Your task to perform on an android device: stop showing notifications on the lock screen Image 0: 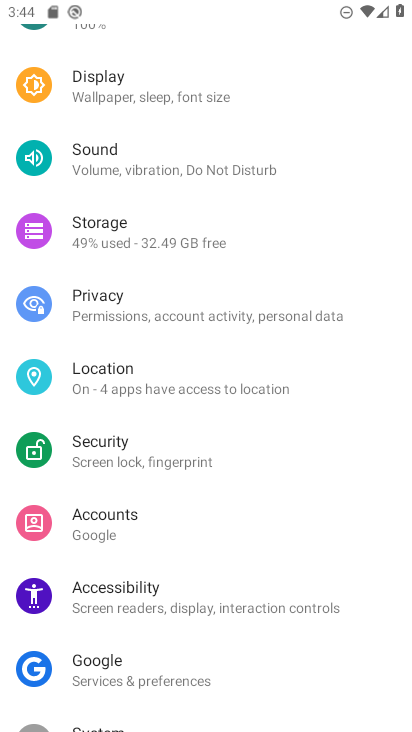
Step 0: drag from (250, 238) to (240, 605)
Your task to perform on an android device: stop showing notifications on the lock screen Image 1: 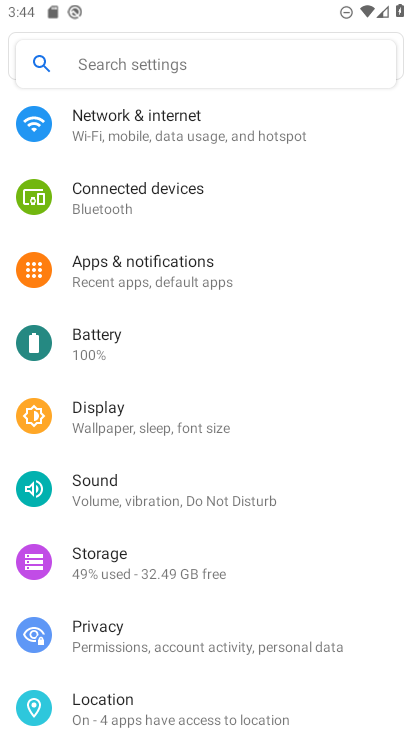
Step 1: click (214, 273)
Your task to perform on an android device: stop showing notifications on the lock screen Image 2: 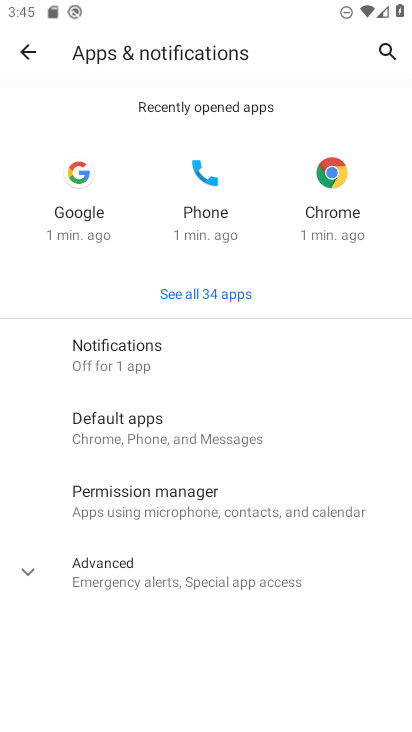
Step 2: click (173, 349)
Your task to perform on an android device: stop showing notifications on the lock screen Image 3: 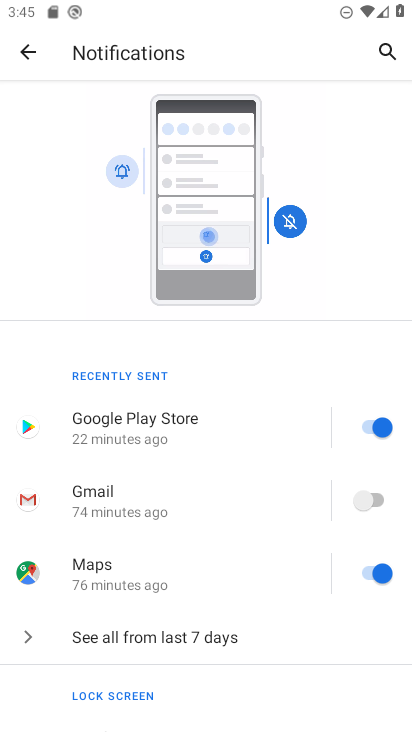
Step 3: drag from (165, 556) to (215, 248)
Your task to perform on an android device: stop showing notifications on the lock screen Image 4: 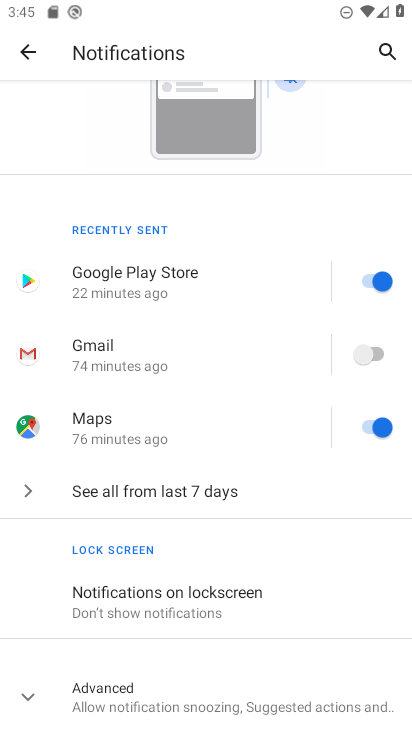
Step 4: drag from (180, 535) to (235, 300)
Your task to perform on an android device: stop showing notifications on the lock screen Image 5: 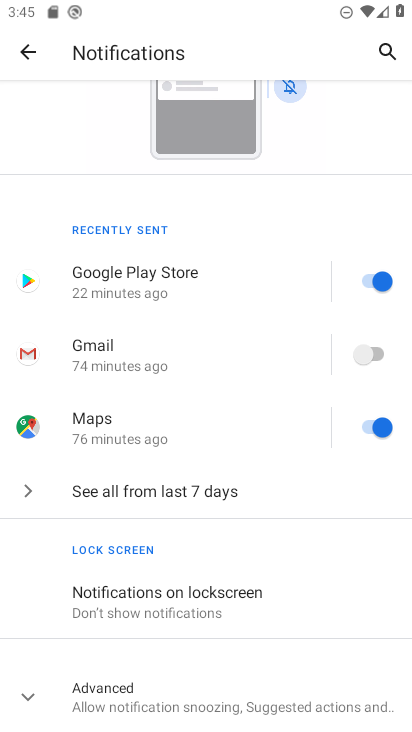
Step 5: click (200, 592)
Your task to perform on an android device: stop showing notifications on the lock screen Image 6: 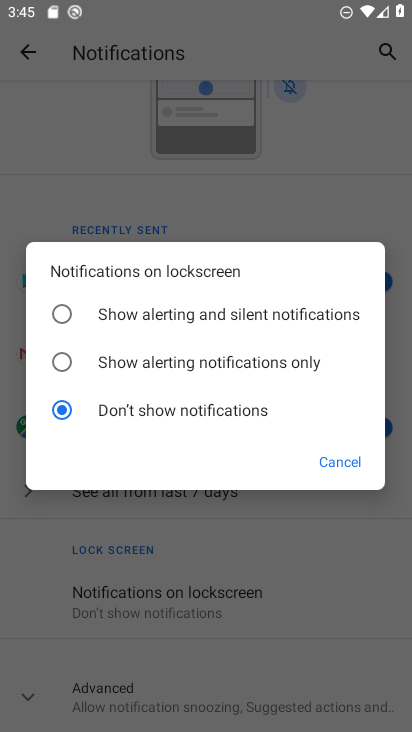
Step 6: task complete